Your task to perform on an android device: Open calendar and show me the first week of next month Image 0: 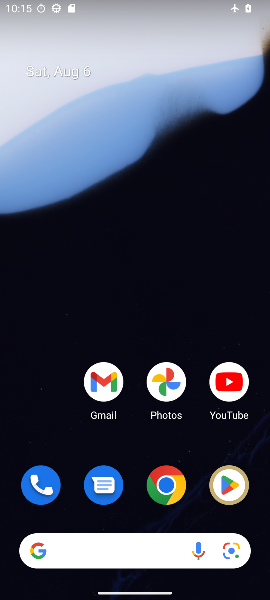
Step 0: drag from (196, 447) to (184, 0)
Your task to perform on an android device: Open calendar and show me the first week of next month Image 1: 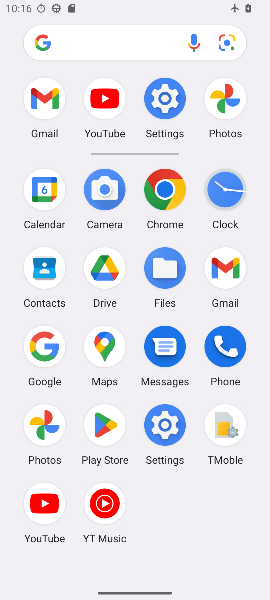
Step 1: click (44, 186)
Your task to perform on an android device: Open calendar and show me the first week of next month Image 2: 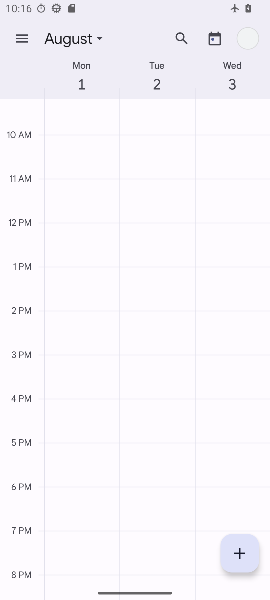
Step 2: click (22, 40)
Your task to perform on an android device: Open calendar and show me the first week of next month Image 3: 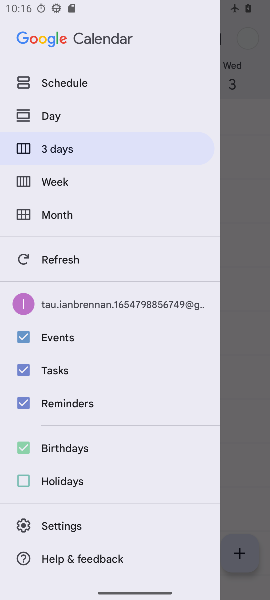
Step 3: click (224, 272)
Your task to perform on an android device: Open calendar and show me the first week of next month Image 4: 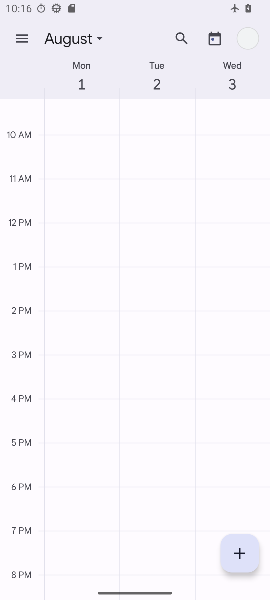
Step 4: click (80, 37)
Your task to perform on an android device: Open calendar and show me the first week of next month Image 5: 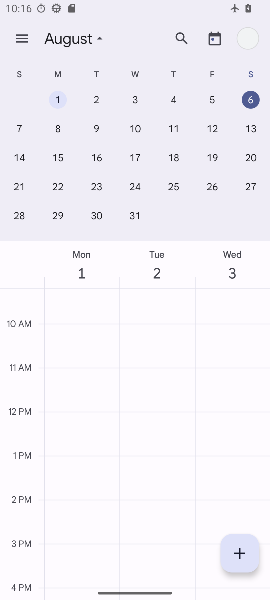
Step 5: drag from (252, 159) to (47, 133)
Your task to perform on an android device: Open calendar and show me the first week of next month Image 6: 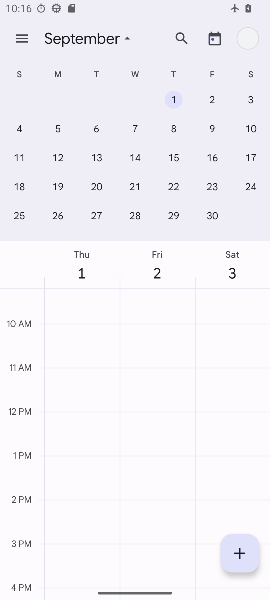
Step 6: click (75, 123)
Your task to perform on an android device: Open calendar and show me the first week of next month Image 7: 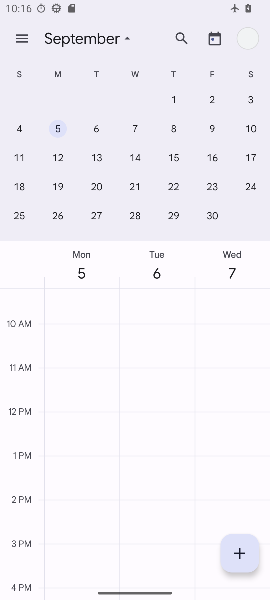
Step 7: click (12, 32)
Your task to perform on an android device: Open calendar and show me the first week of next month Image 8: 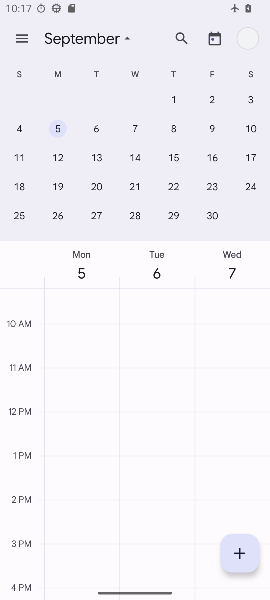
Step 8: click (29, 36)
Your task to perform on an android device: Open calendar and show me the first week of next month Image 9: 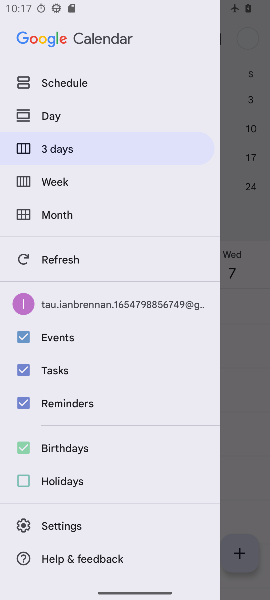
Step 9: click (66, 175)
Your task to perform on an android device: Open calendar and show me the first week of next month Image 10: 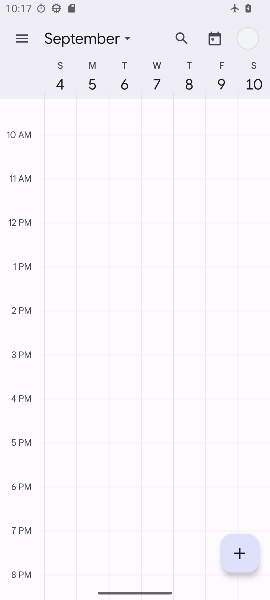
Step 10: task complete